Your task to perform on an android device: install app "Cash App" Image 0: 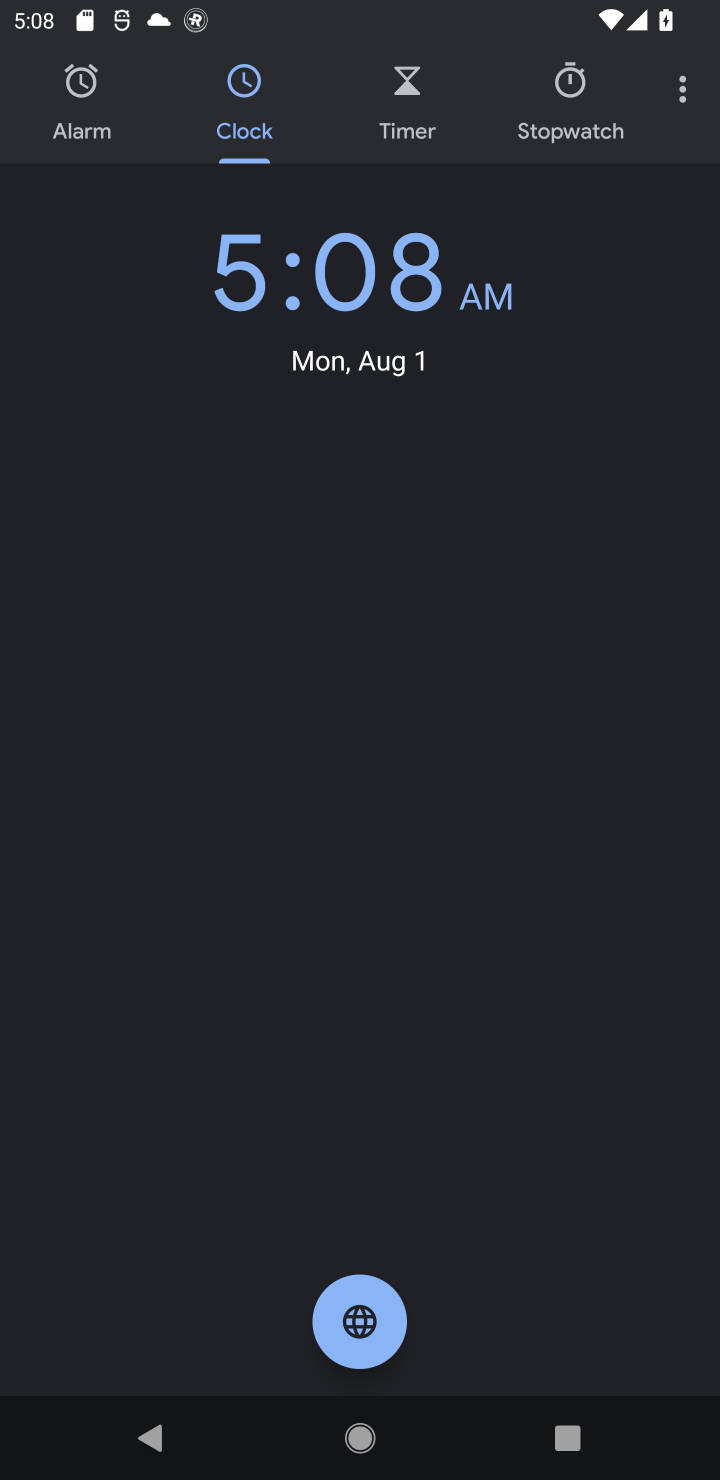
Step 0: press home button
Your task to perform on an android device: install app "Cash App" Image 1: 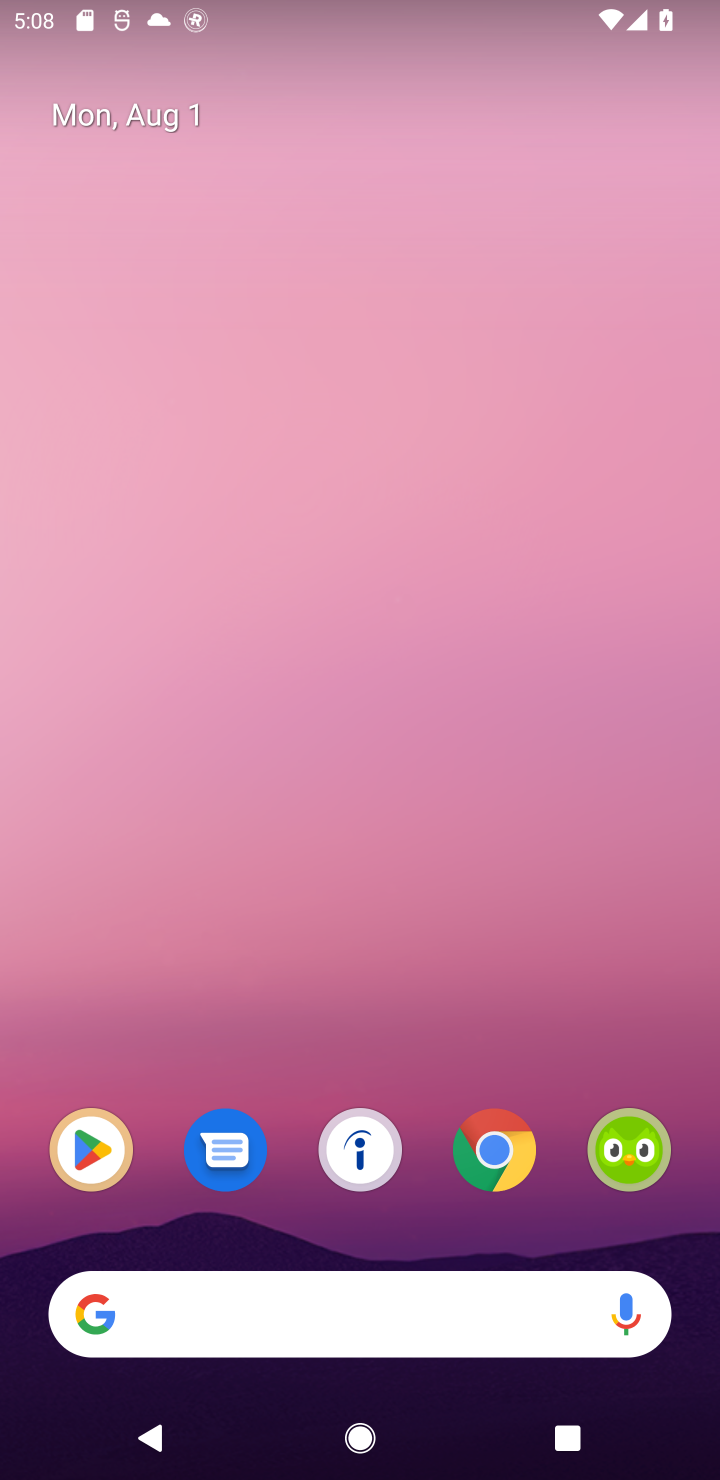
Step 1: click (90, 1116)
Your task to perform on an android device: install app "Cash App" Image 2: 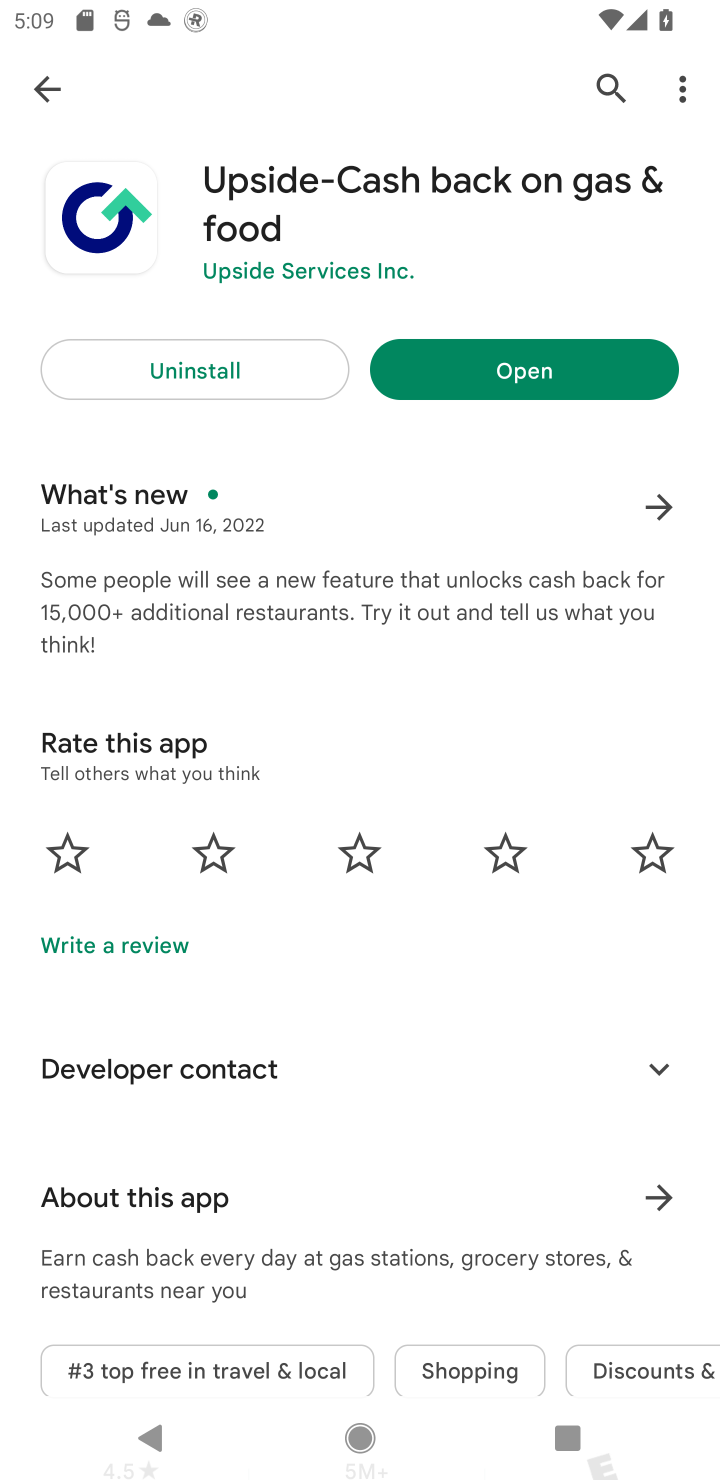
Step 2: click (601, 88)
Your task to perform on an android device: install app "Cash App" Image 3: 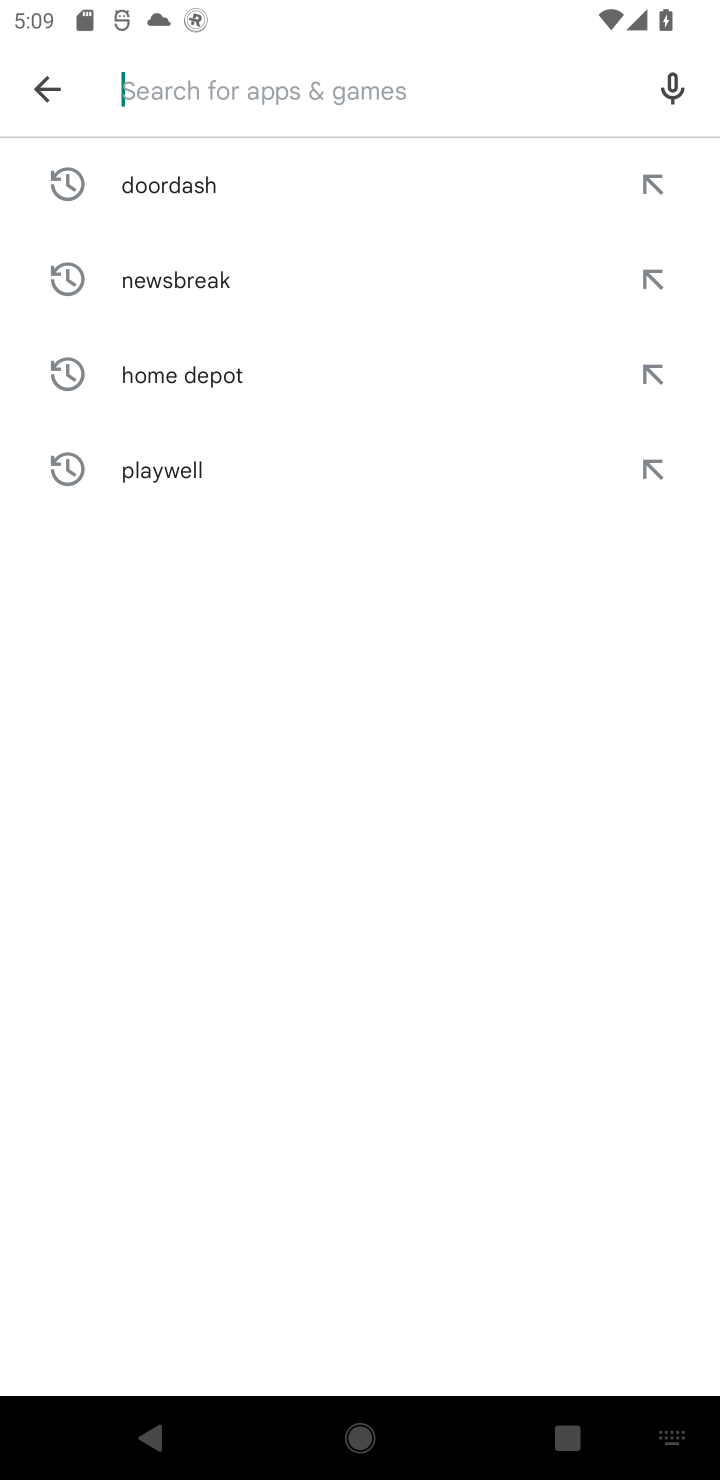
Step 3: type "cash "
Your task to perform on an android device: install app "Cash App" Image 4: 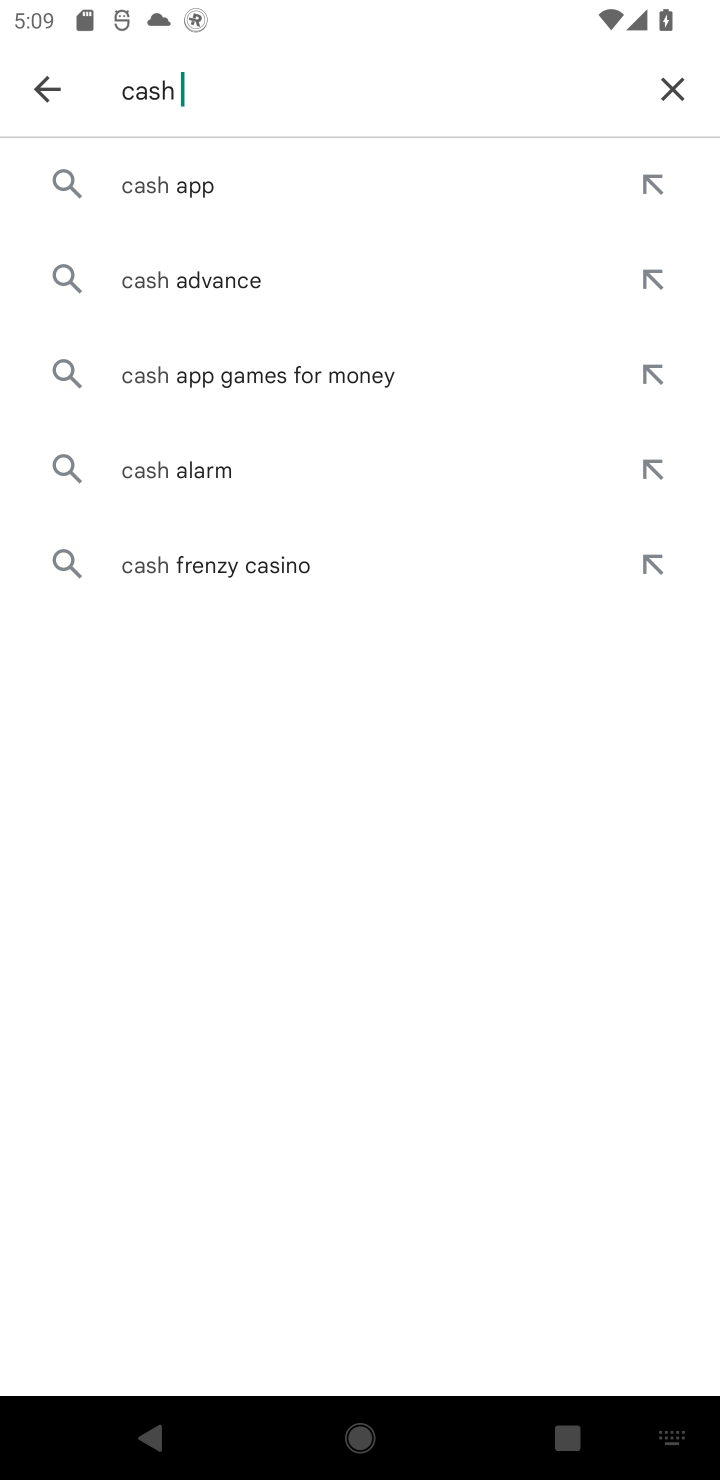
Step 4: click (321, 203)
Your task to perform on an android device: install app "Cash App" Image 5: 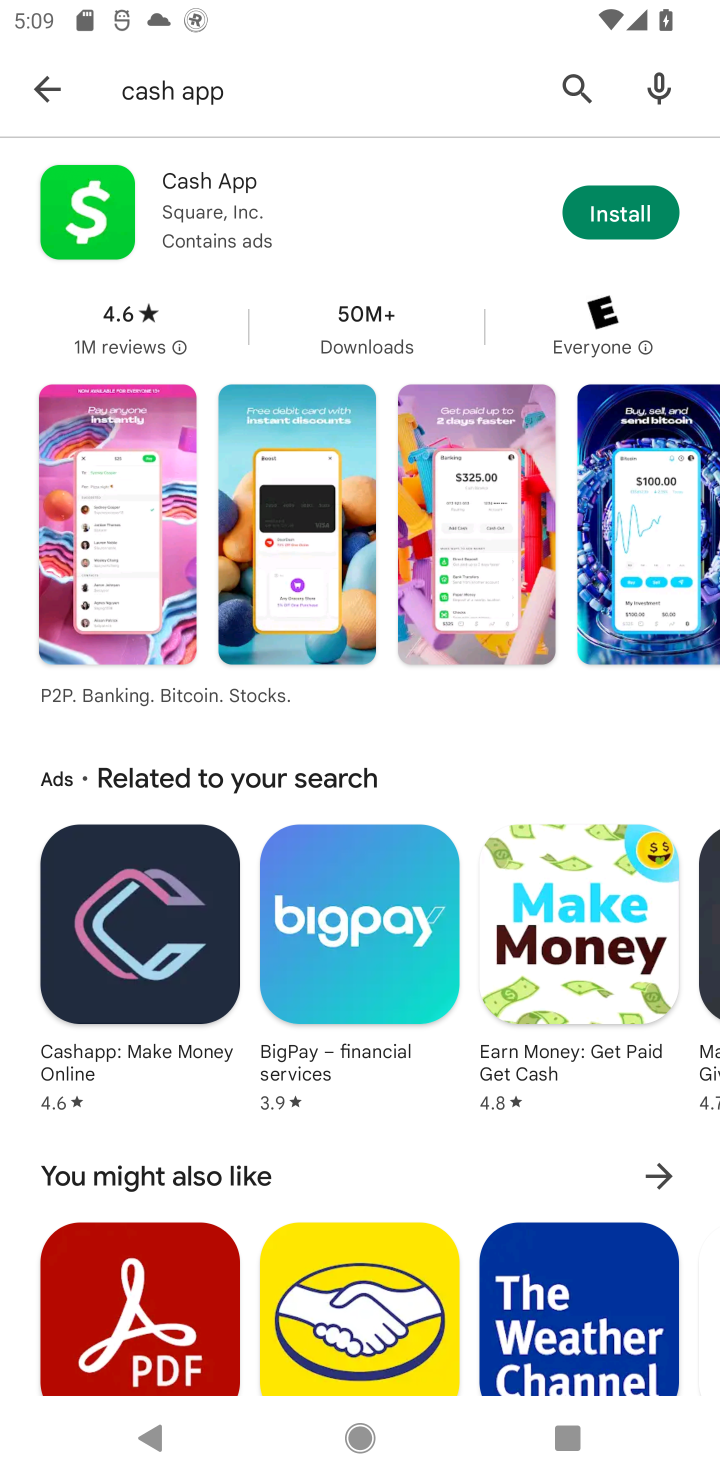
Step 5: click (615, 195)
Your task to perform on an android device: install app "Cash App" Image 6: 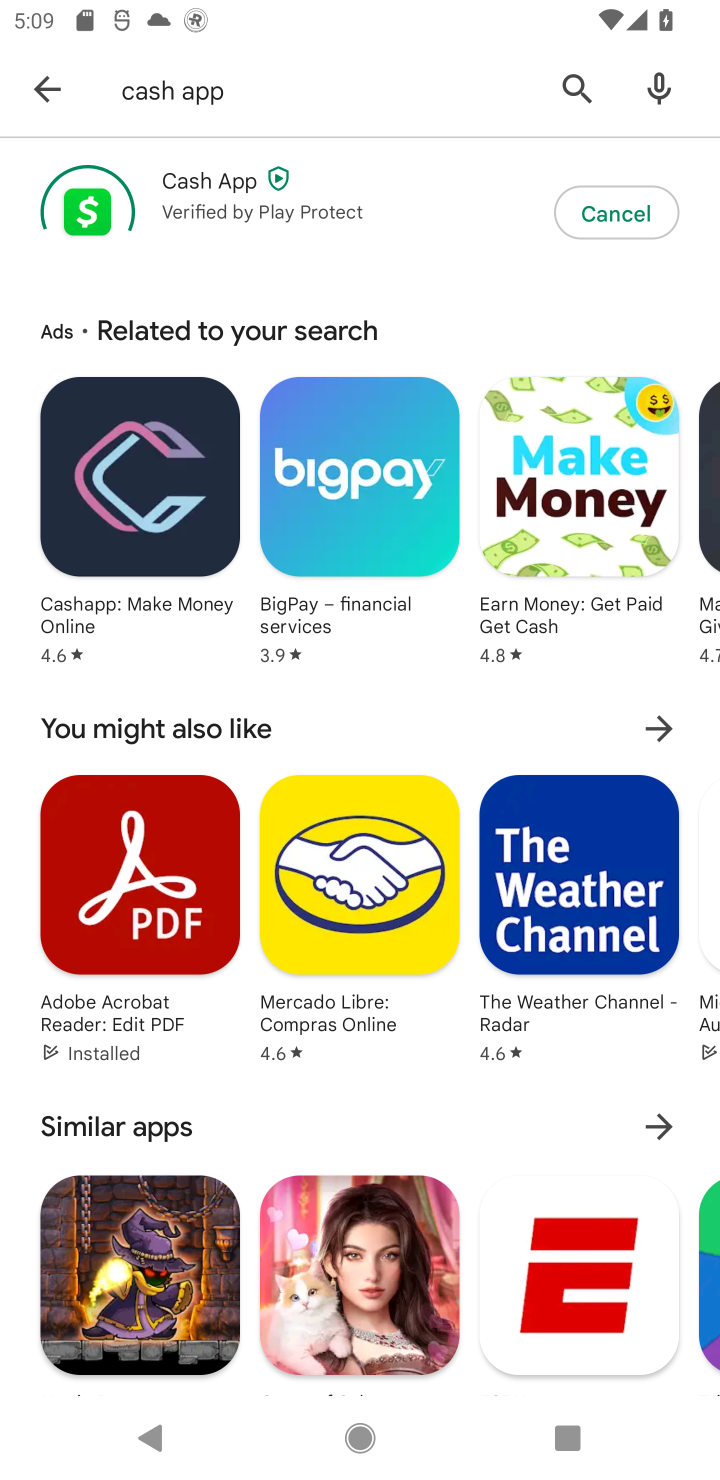
Step 6: task complete